Your task to perform on an android device: Open calendar and show me the second week of next month Image 0: 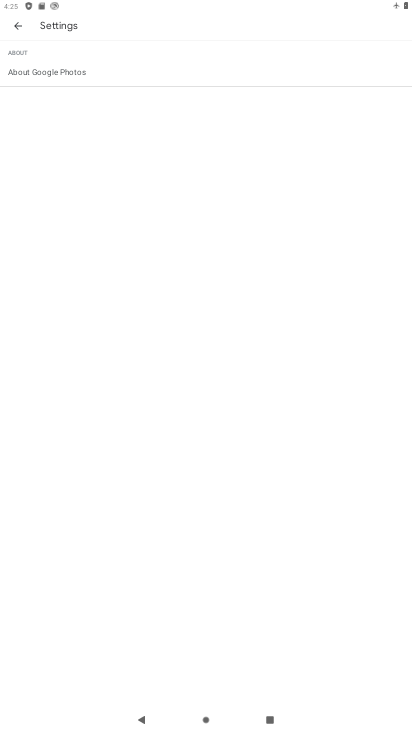
Step 0: press home button
Your task to perform on an android device: Open calendar and show me the second week of next month Image 1: 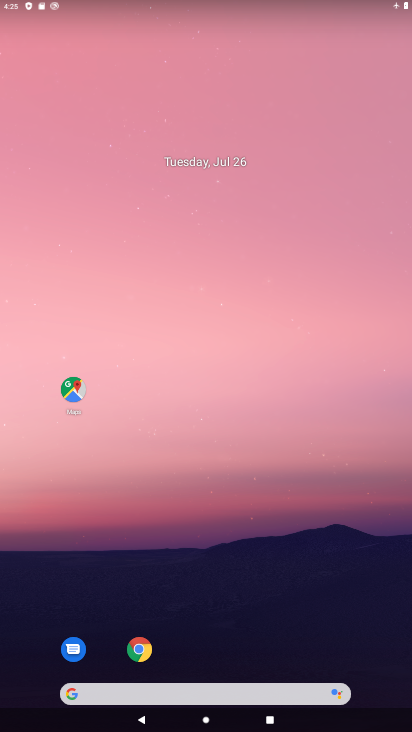
Step 1: drag from (200, 628) to (219, 148)
Your task to perform on an android device: Open calendar and show me the second week of next month Image 2: 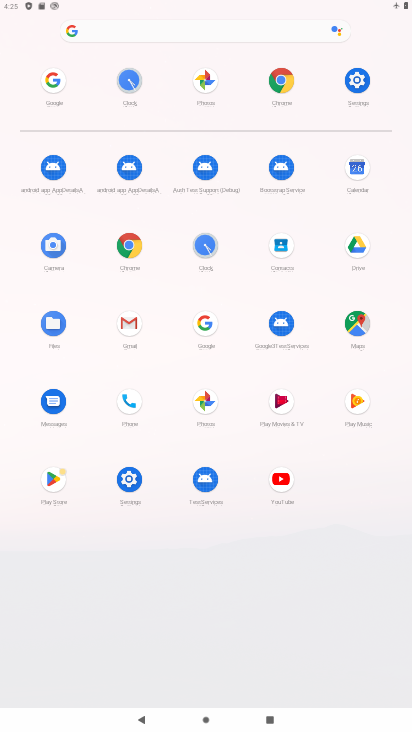
Step 2: click (348, 190)
Your task to perform on an android device: Open calendar and show me the second week of next month Image 3: 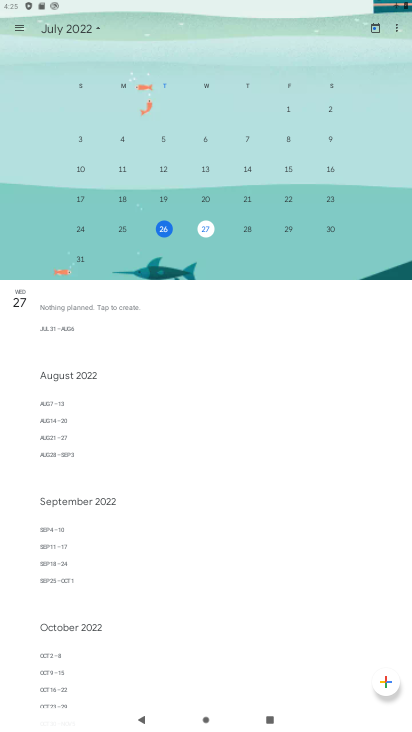
Step 3: click (100, 29)
Your task to perform on an android device: Open calendar and show me the second week of next month Image 4: 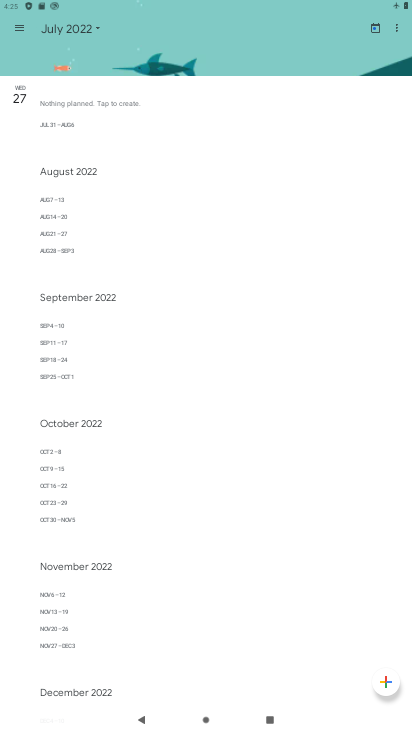
Step 4: click (97, 24)
Your task to perform on an android device: Open calendar and show me the second week of next month Image 5: 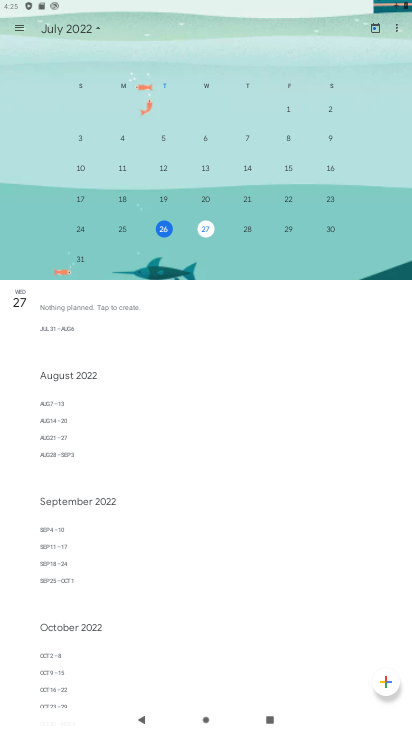
Step 5: drag from (358, 150) to (48, 174)
Your task to perform on an android device: Open calendar and show me the second week of next month Image 6: 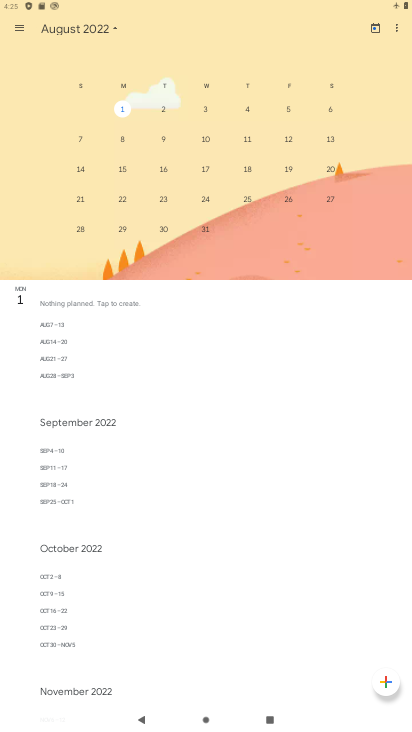
Step 6: click (86, 144)
Your task to perform on an android device: Open calendar and show me the second week of next month Image 7: 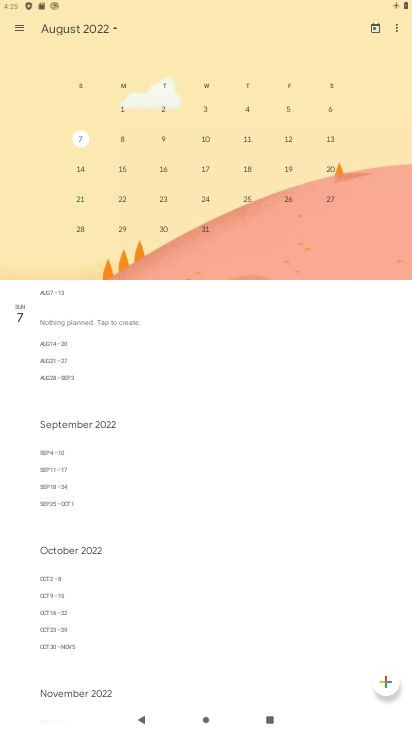
Step 7: click (83, 152)
Your task to perform on an android device: Open calendar and show me the second week of next month Image 8: 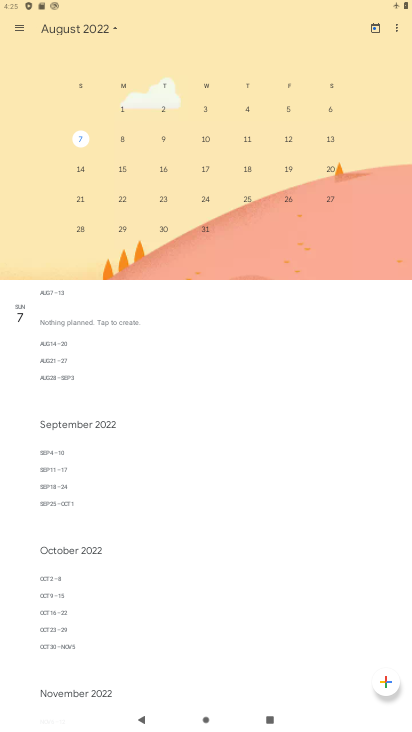
Step 8: task complete